Your task to perform on an android device: Open the calendar and show me this week's events? Image 0: 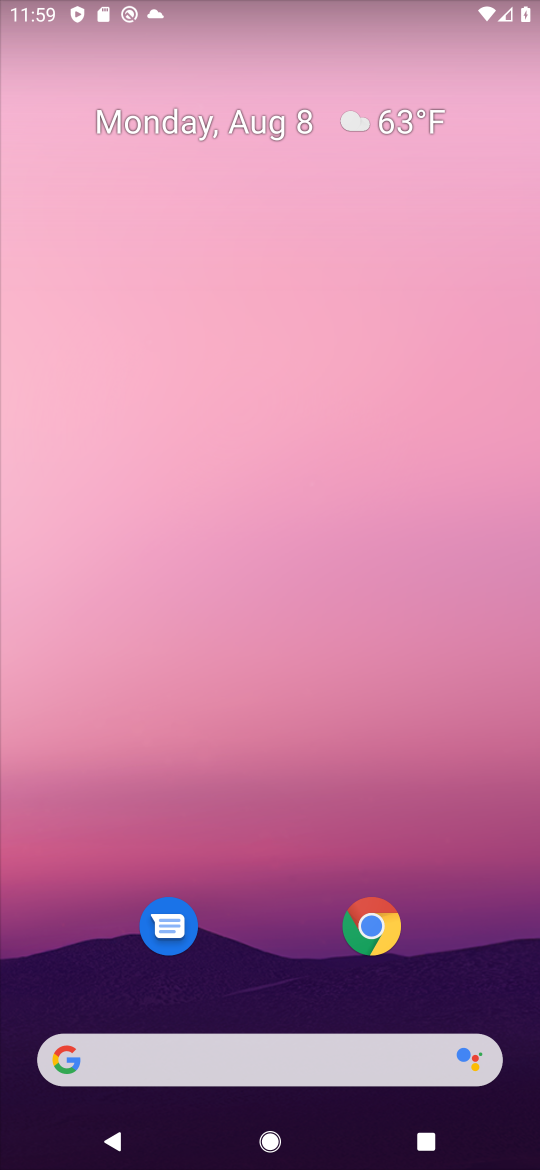
Step 0: drag from (50, 951) to (402, 259)
Your task to perform on an android device: Open the calendar and show me this week's events? Image 1: 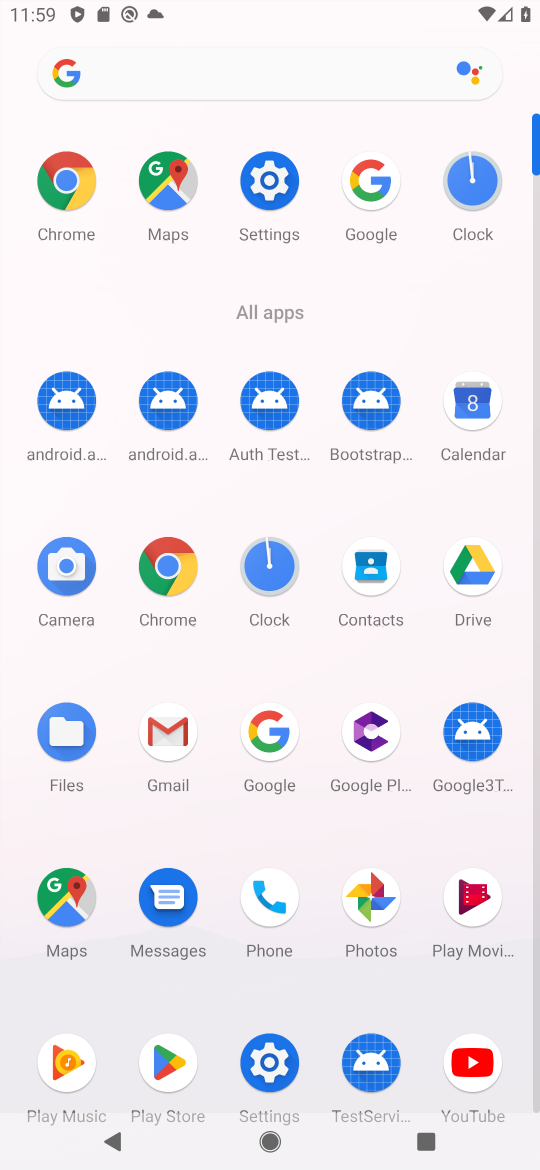
Step 1: click (473, 402)
Your task to perform on an android device: Open the calendar and show me this week's events? Image 2: 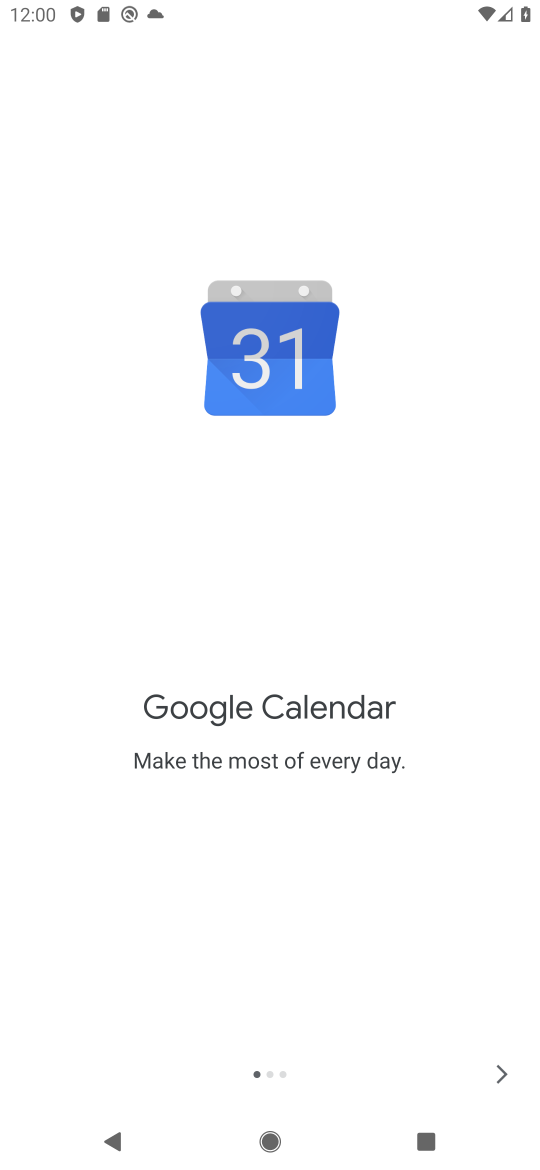
Step 2: click (501, 1074)
Your task to perform on an android device: Open the calendar and show me this week's events? Image 3: 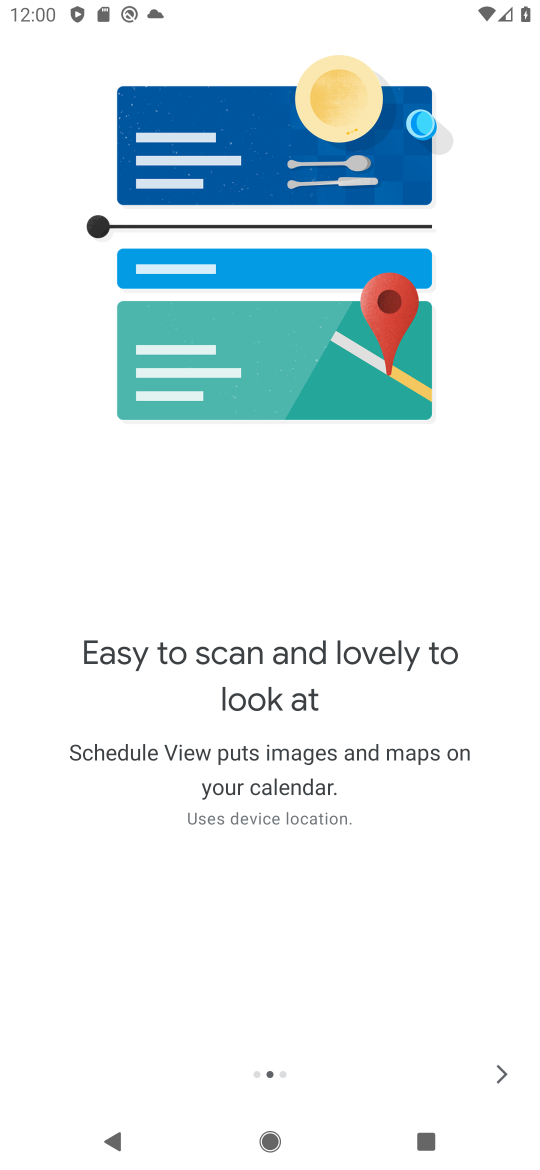
Step 3: click (502, 1072)
Your task to perform on an android device: Open the calendar and show me this week's events? Image 4: 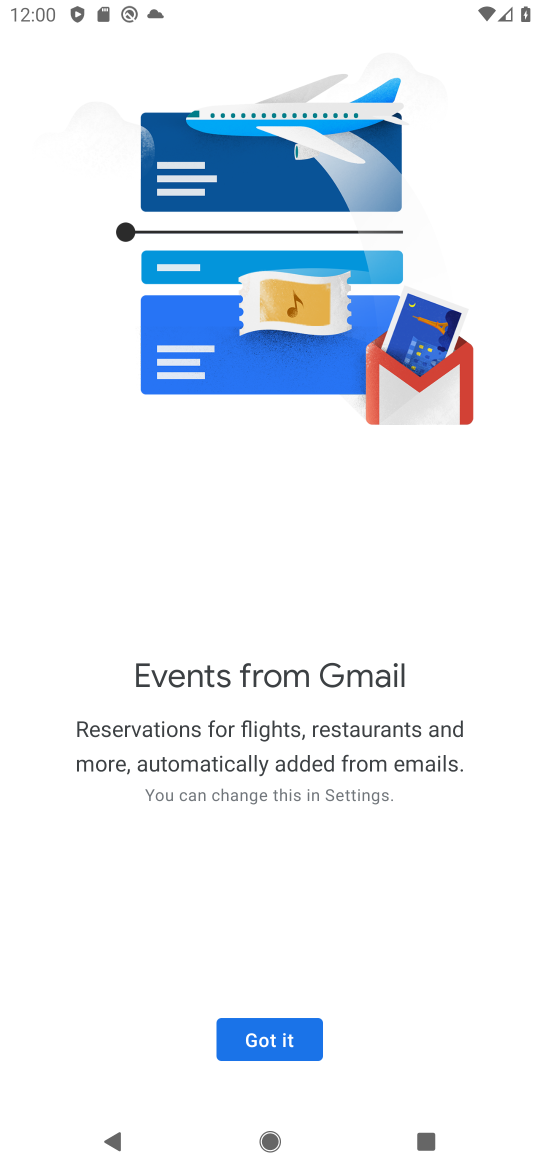
Step 4: click (282, 1039)
Your task to perform on an android device: Open the calendar and show me this week's events? Image 5: 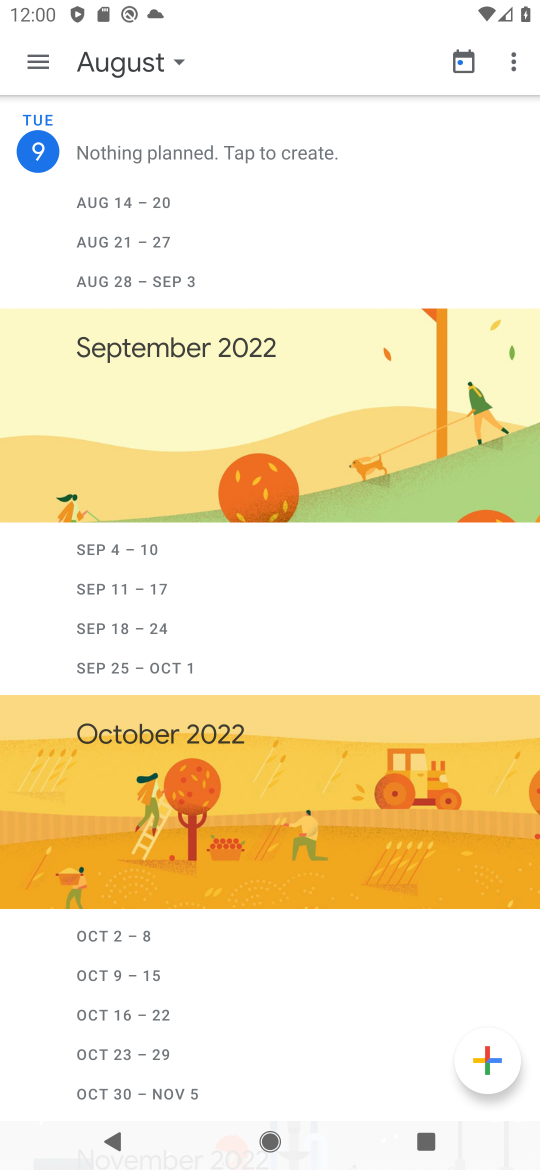
Step 5: click (118, 66)
Your task to perform on an android device: Open the calendar and show me this week's events? Image 6: 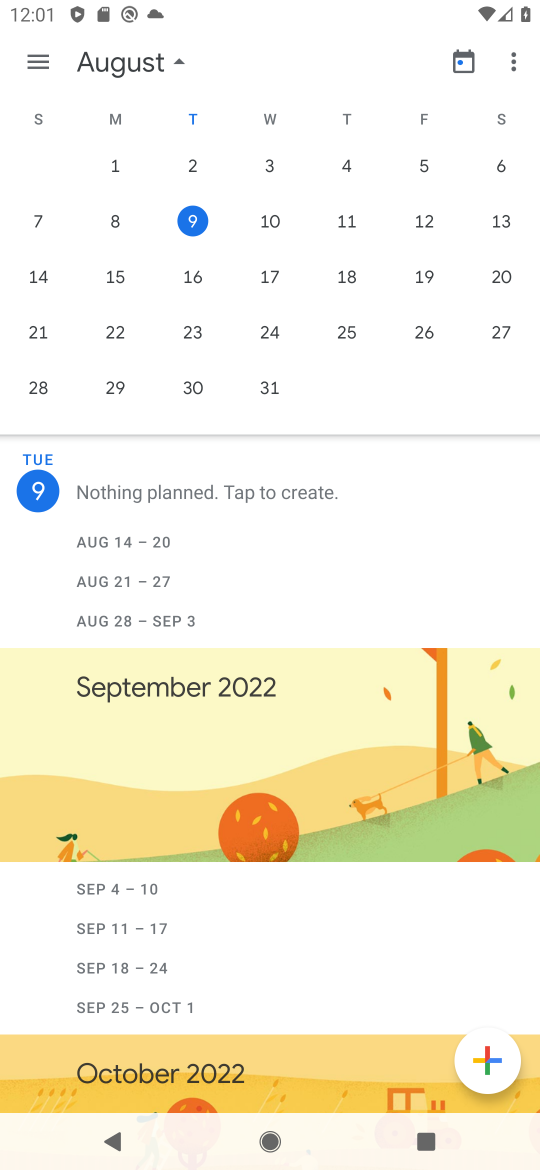
Step 6: click (255, 239)
Your task to perform on an android device: Open the calendar and show me this week's events? Image 7: 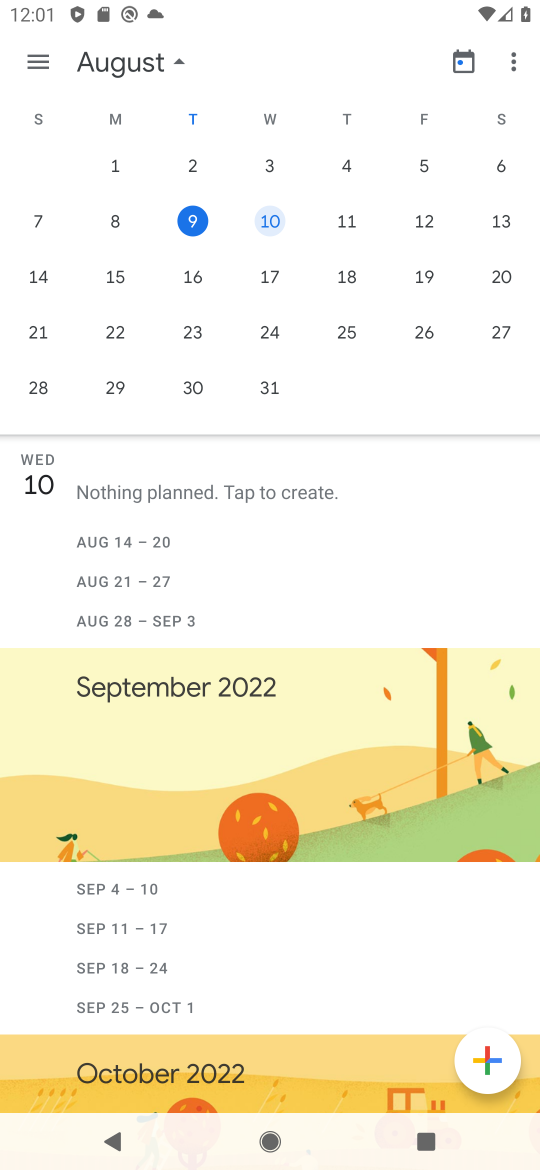
Step 7: click (354, 230)
Your task to perform on an android device: Open the calendar and show me this week's events? Image 8: 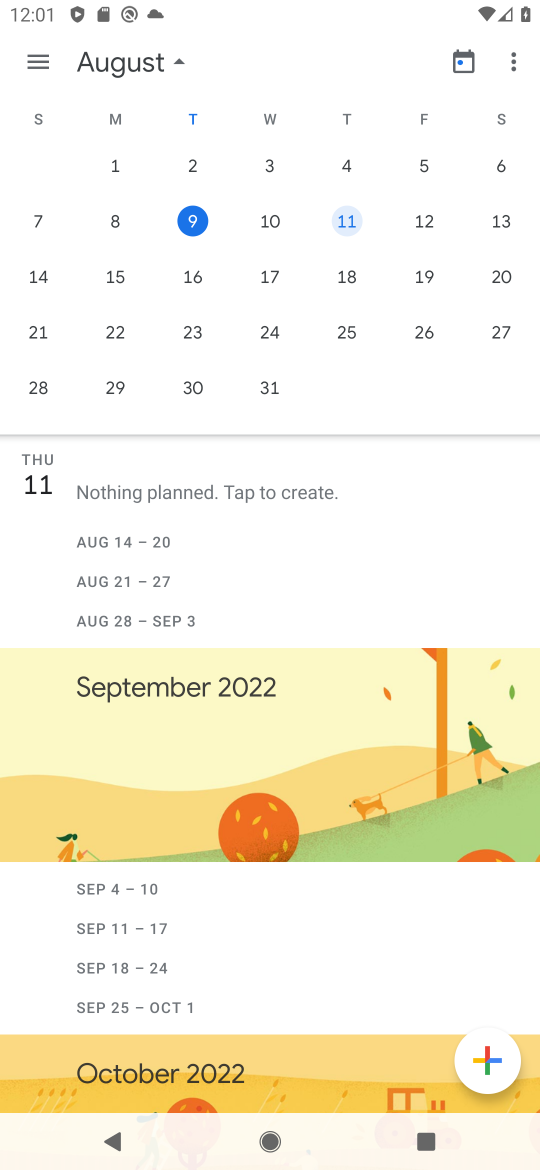
Step 8: click (421, 224)
Your task to perform on an android device: Open the calendar and show me this week's events? Image 9: 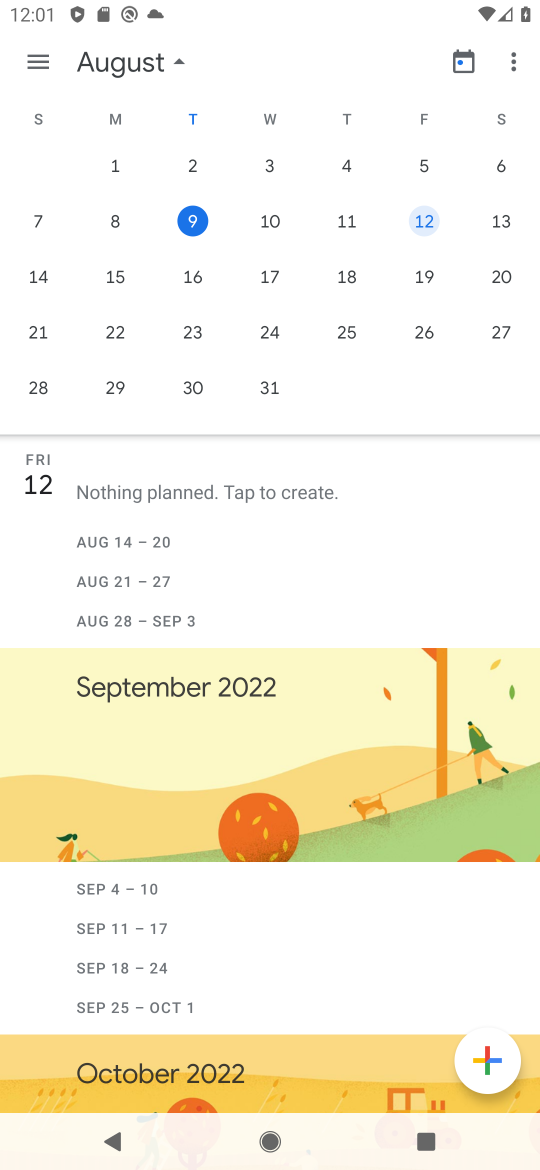
Step 9: click (499, 243)
Your task to perform on an android device: Open the calendar and show me this week's events? Image 10: 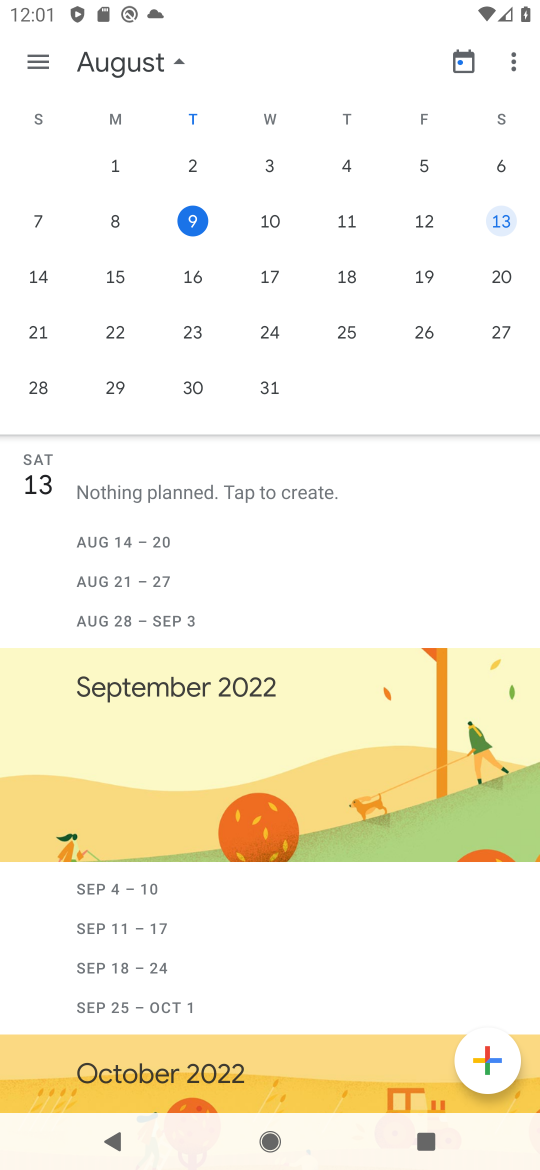
Step 10: task complete